Your task to perform on an android device: Go to network settings Image 0: 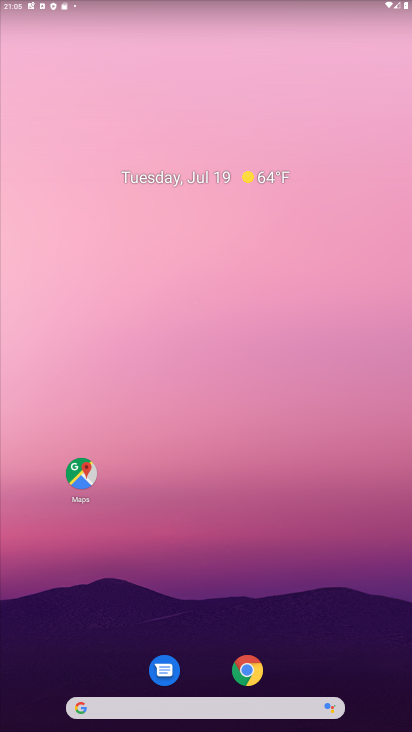
Step 0: drag from (257, 724) to (195, 33)
Your task to perform on an android device: Go to network settings Image 1: 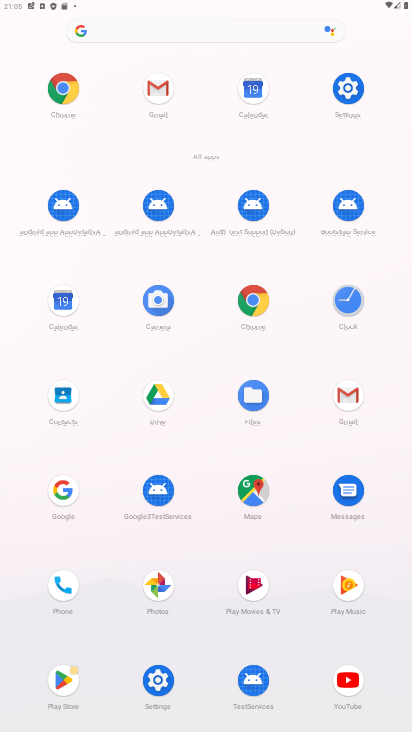
Step 1: click (348, 94)
Your task to perform on an android device: Go to network settings Image 2: 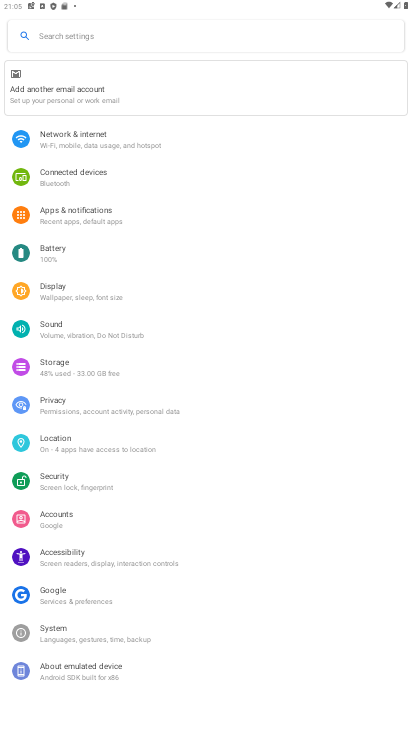
Step 2: click (200, 140)
Your task to perform on an android device: Go to network settings Image 3: 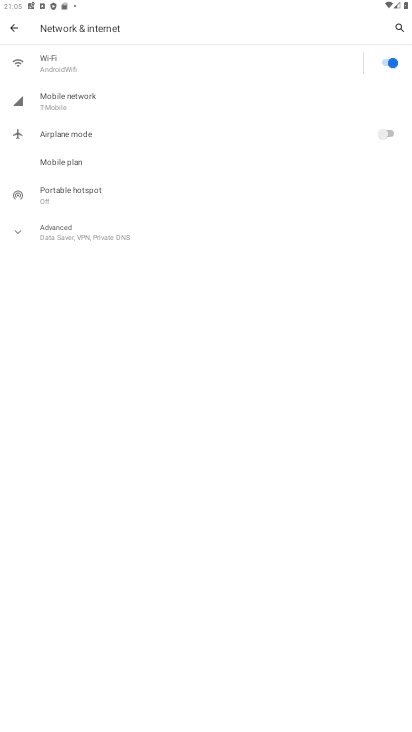
Step 3: task complete